Your task to perform on an android device: What is the news today? Image 0: 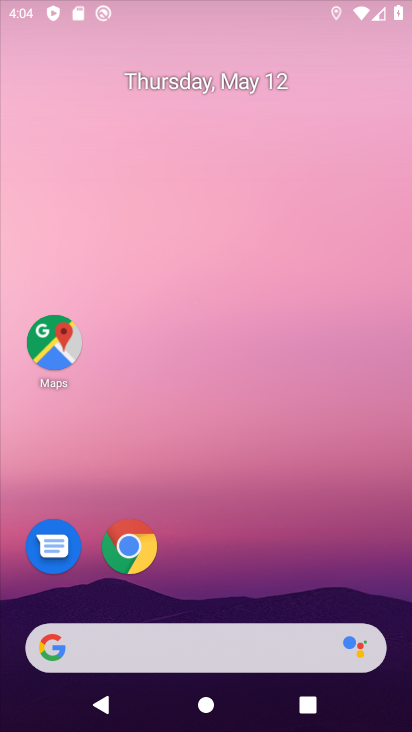
Step 0: drag from (261, 425) to (216, 46)
Your task to perform on an android device: What is the news today? Image 1: 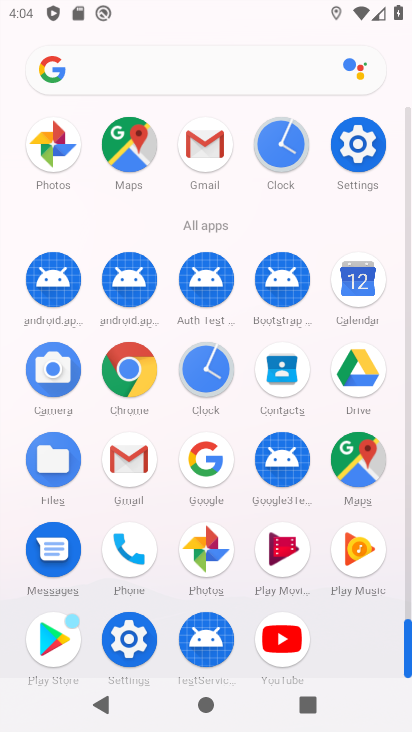
Step 1: drag from (9, 488) to (1, 272)
Your task to perform on an android device: What is the news today? Image 2: 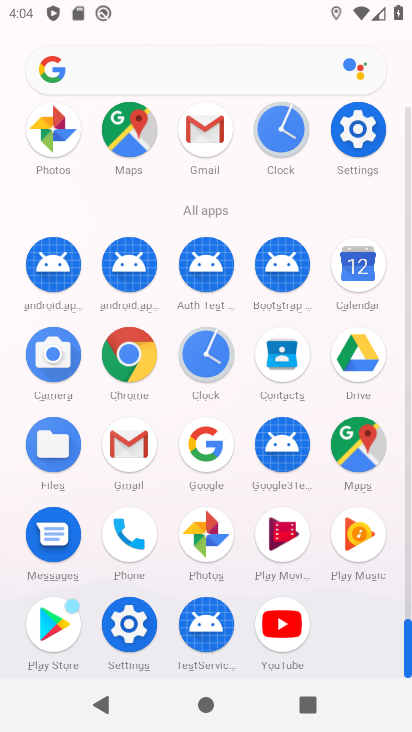
Step 2: click (131, 353)
Your task to perform on an android device: What is the news today? Image 3: 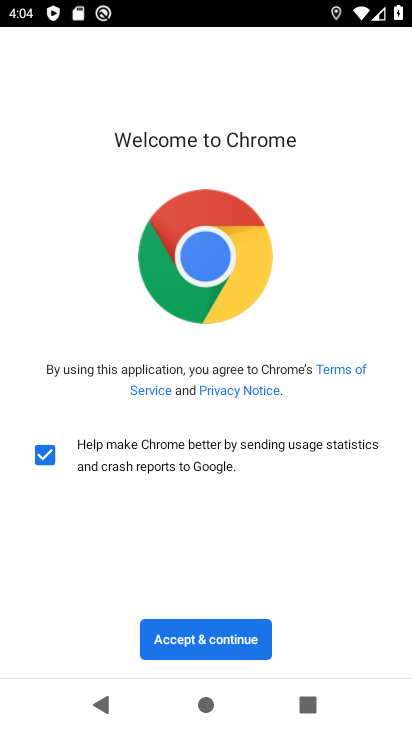
Step 3: click (195, 629)
Your task to perform on an android device: What is the news today? Image 4: 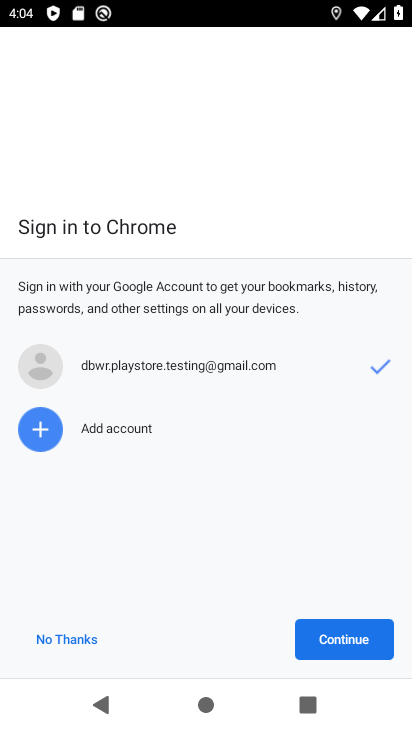
Step 4: click (319, 631)
Your task to perform on an android device: What is the news today? Image 5: 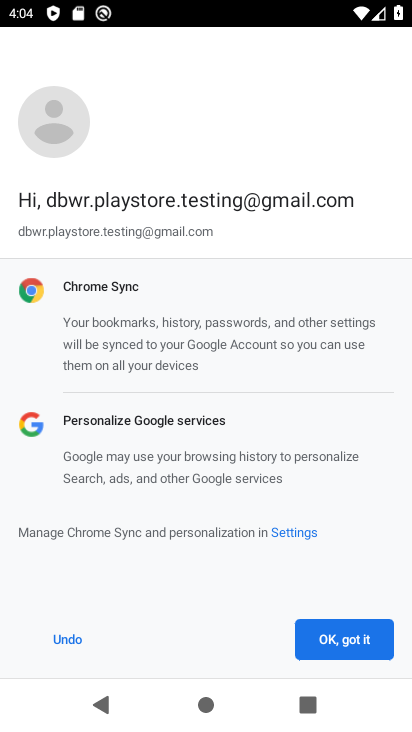
Step 5: click (337, 646)
Your task to perform on an android device: What is the news today? Image 6: 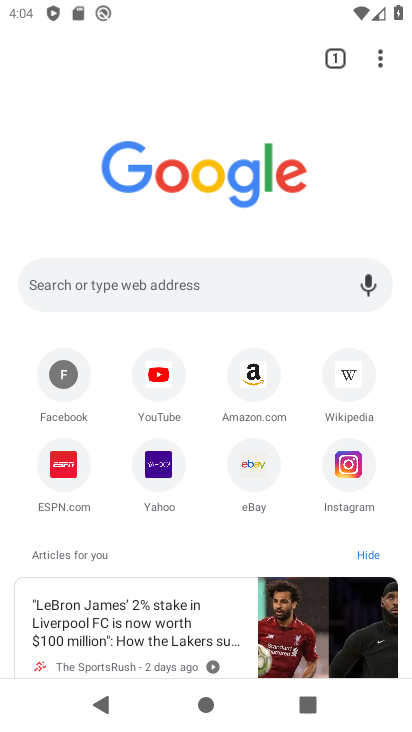
Step 6: click (216, 280)
Your task to perform on an android device: What is the news today? Image 7: 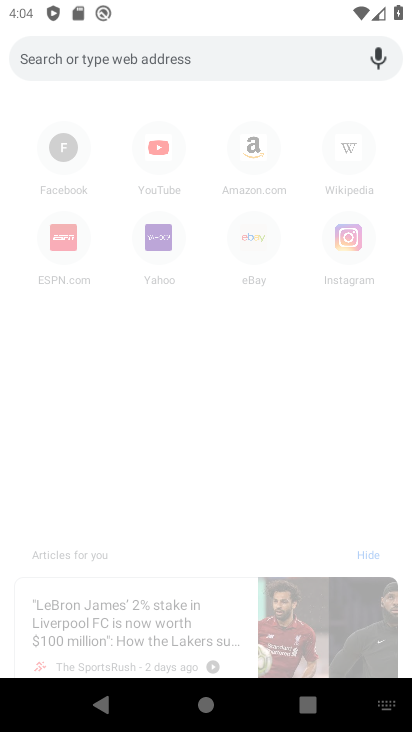
Step 7: type "What is the news today?"
Your task to perform on an android device: What is the news today? Image 8: 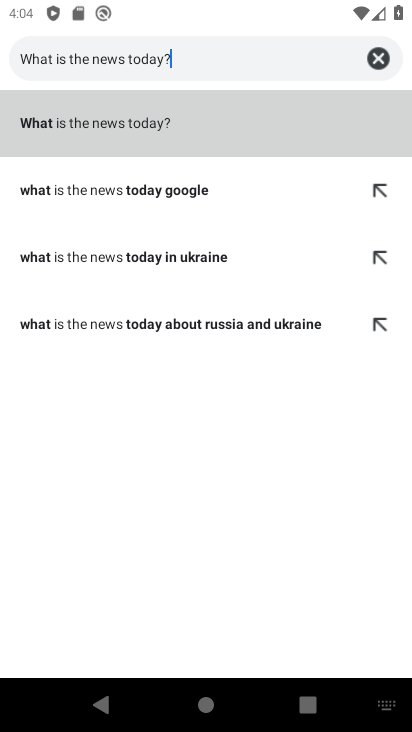
Step 8: type ""
Your task to perform on an android device: What is the news today? Image 9: 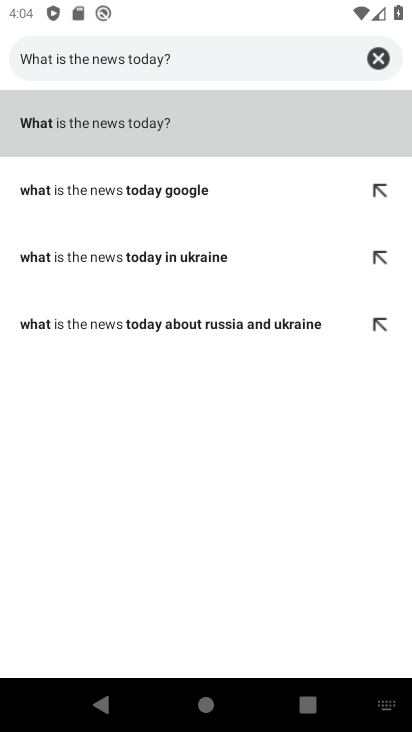
Step 9: click (183, 134)
Your task to perform on an android device: What is the news today? Image 10: 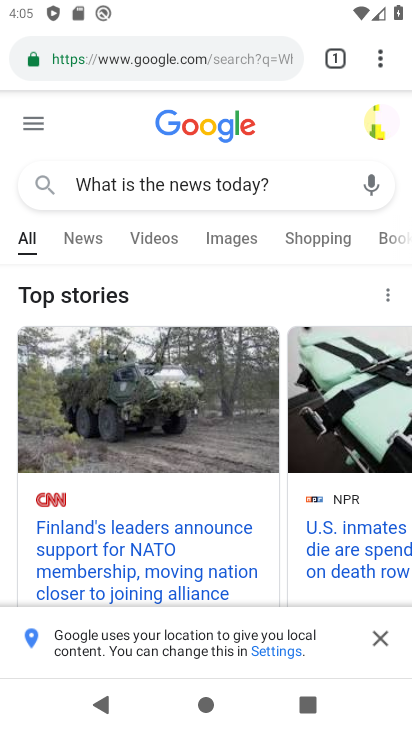
Step 10: task complete